Your task to perform on an android device: Go to location settings Image 0: 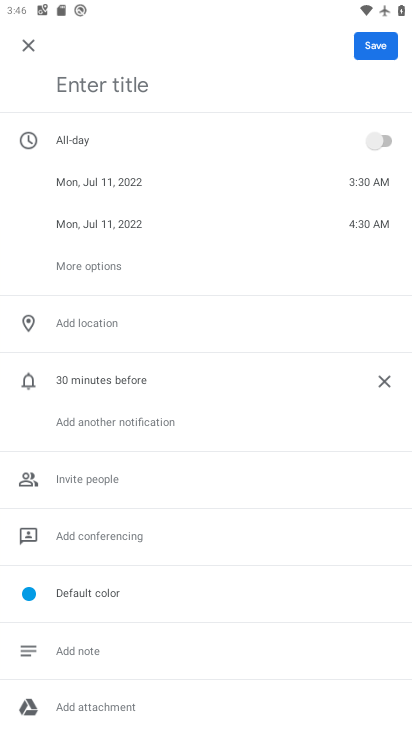
Step 0: press home button
Your task to perform on an android device: Go to location settings Image 1: 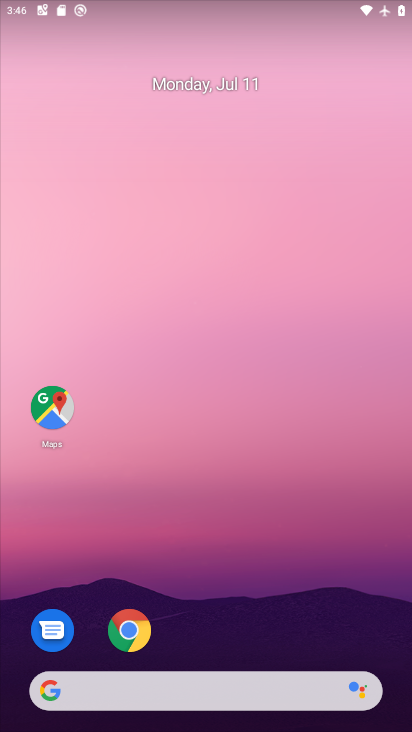
Step 1: drag from (312, 604) to (312, 177)
Your task to perform on an android device: Go to location settings Image 2: 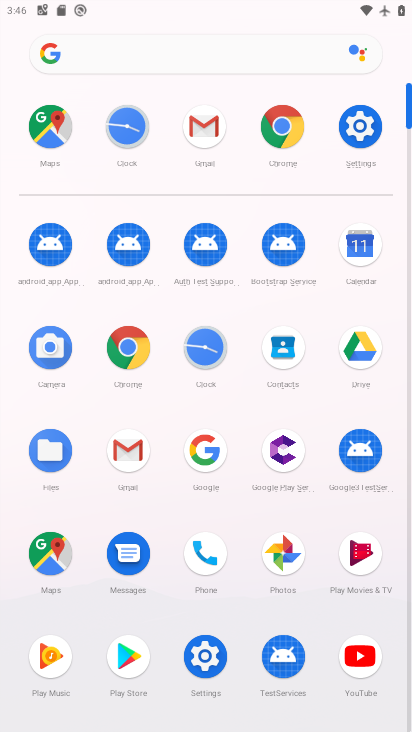
Step 2: click (350, 117)
Your task to perform on an android device: Go to location settings Image 3: 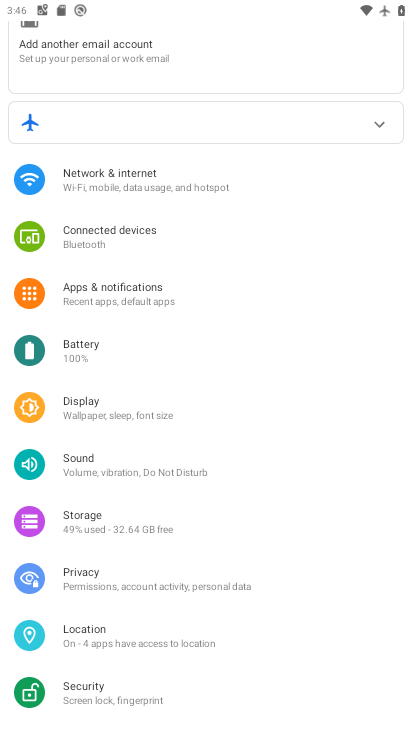
Step 3: click (182, 620)
Your task to perform on an android device: Go to location settings Image 4: 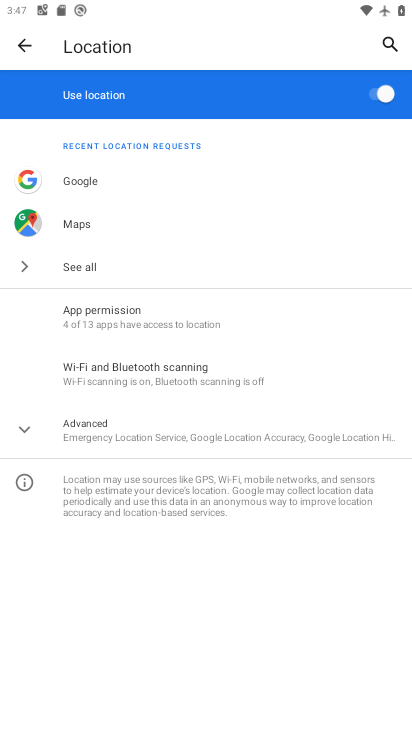
Step 4: task complete